Your task to perform on an android device: choose inbox layout in the gmail app Image 0: 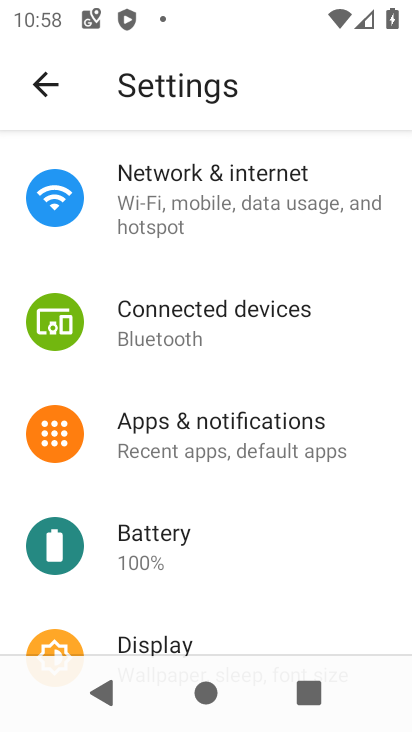
Step 0: press home button
Your task to perform on an android device: choose inbox layout in the gmail app Image 1: 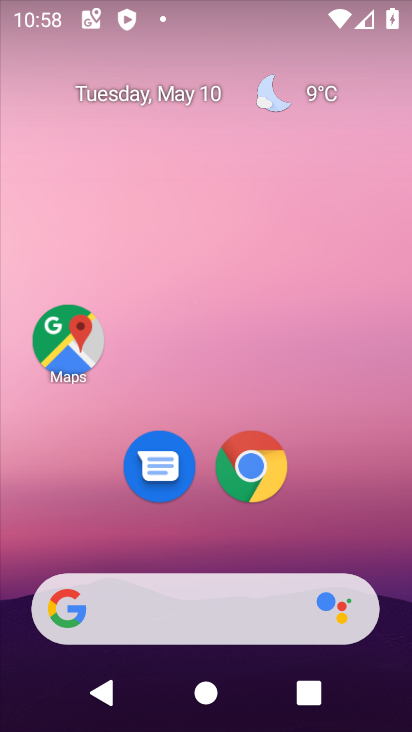
Step 1: drag from (275, 543) to (277, 1)
Your task to perform on an android device: choose inbox layout in the gmail app Image 2: 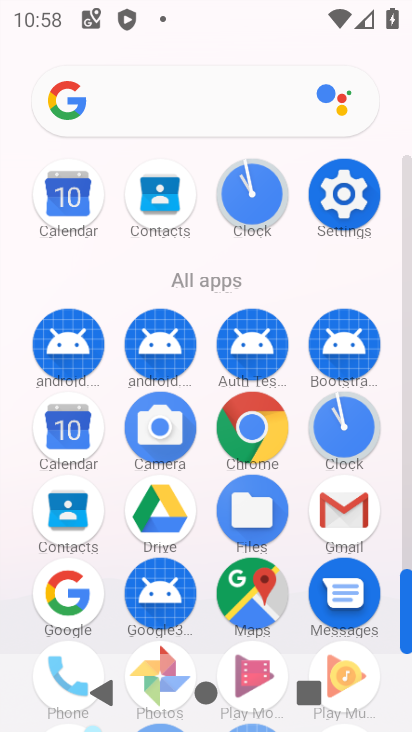
Step 2: click (317, 506)
Your task to perform on an android device: choose inbox layout in the gmail app Image 3: 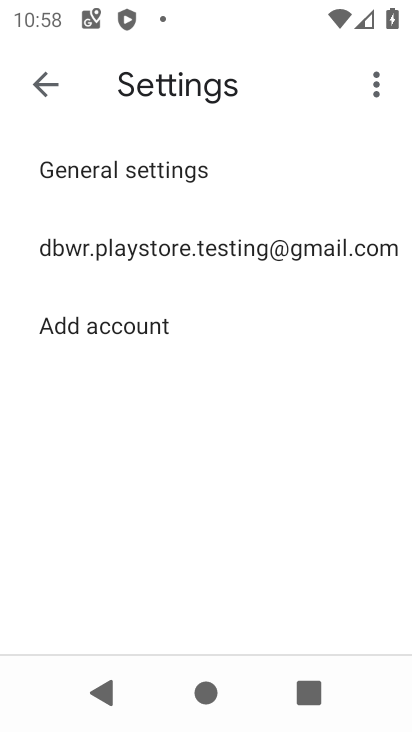
Step 3: click (104, 258)
Your task to perform on an android device: choose inbox layout in the gmail app Image 4: 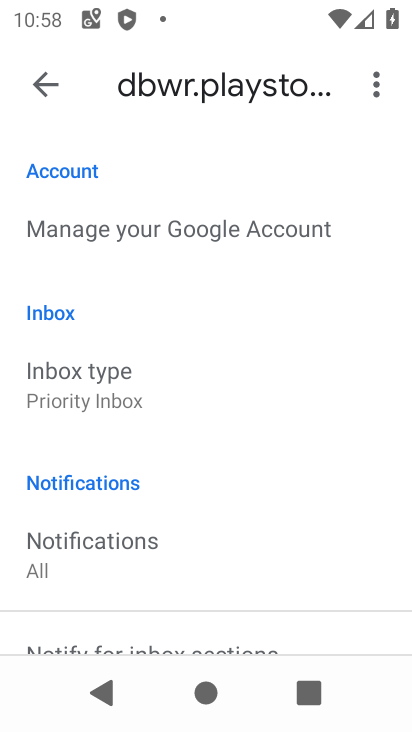
Step 4: click (161, 401)
Your task to perform on an android device: choose inbox layout in the gmail app Image 5: 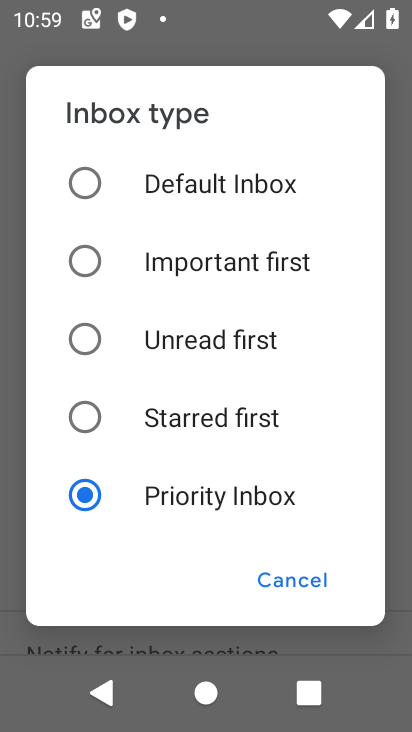
Step 5: click (169, 169)
Your task to perform on an android device: choose inbox layout in the gmail app Image 6: 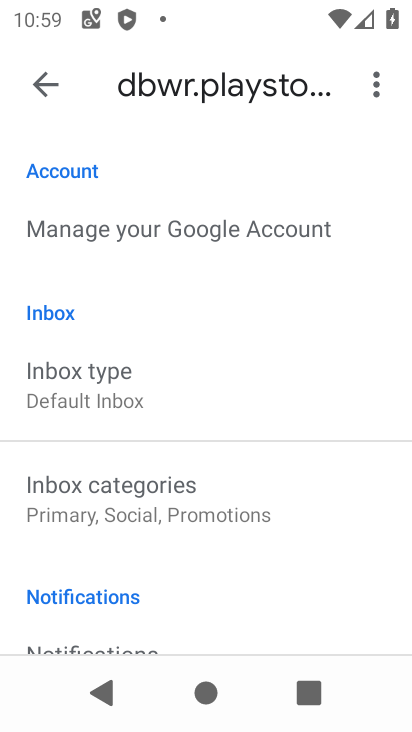
Step 6: task complete